Your task to perform on an android device: move a message to another label in the gmail app Image 0: 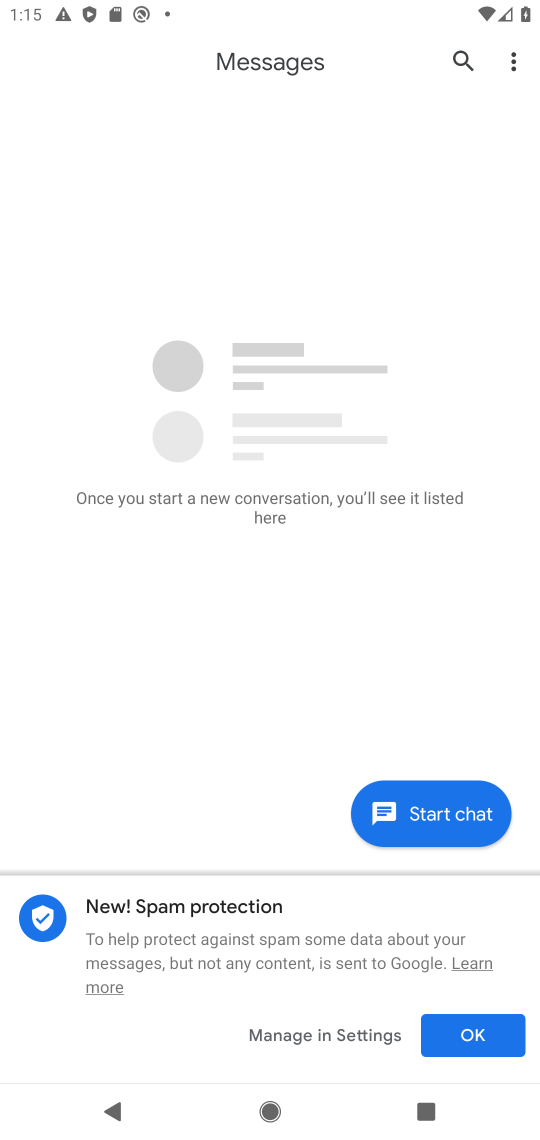
Step 0: press home button
Your task to perform on an android device: move a message to another label in the gmail app Image 1: 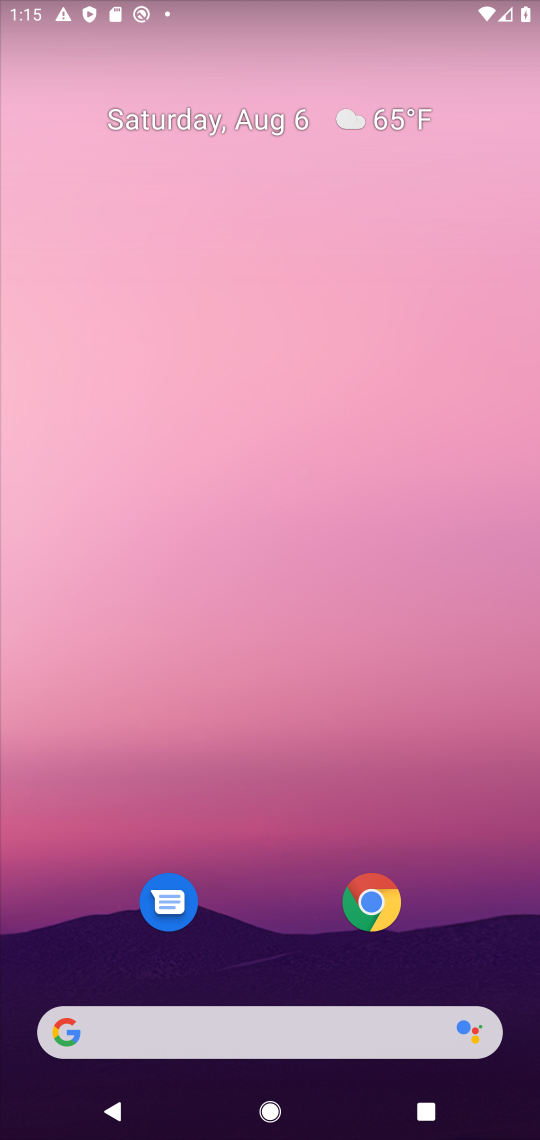
Step 1: drag from (280, 814) to (268, 160)
Your task to perform on an android device: move a message to another label in the gmail app Image 2: 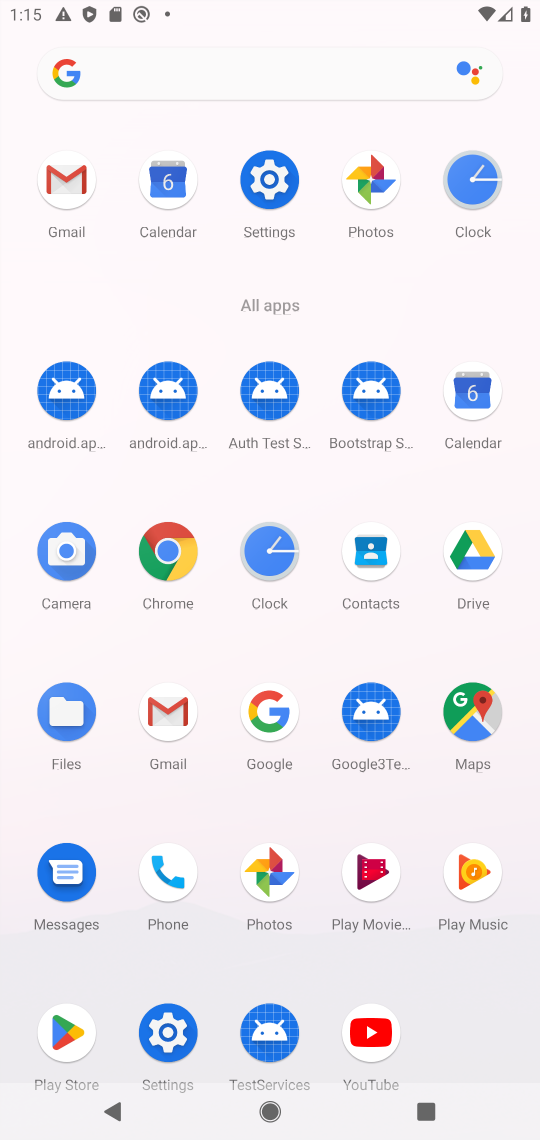
Step 2: click (54, 186)
Your task to perform on an android device: move a message to another label in the gmail app Image 3: 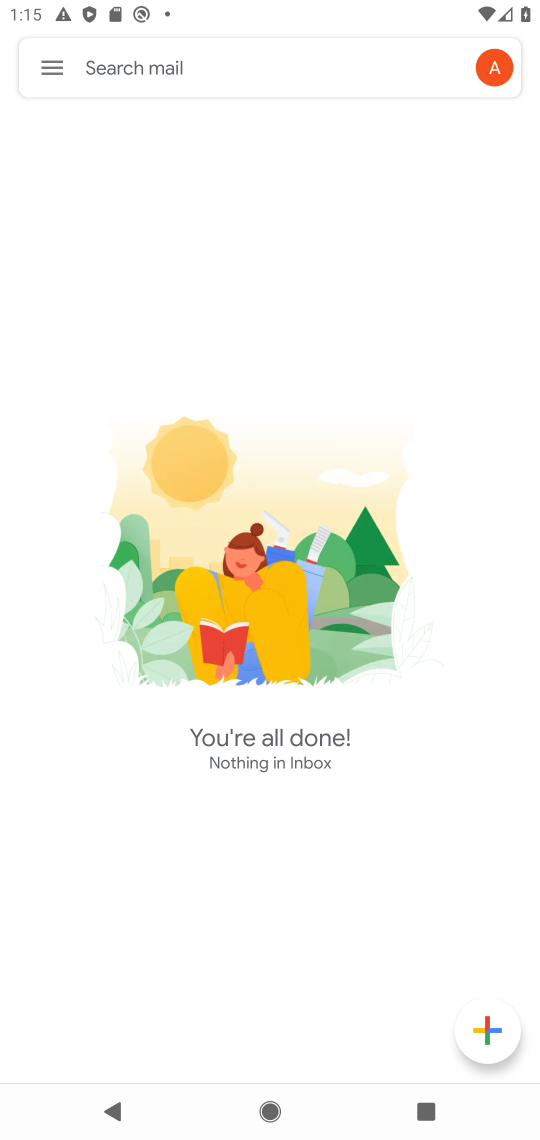
Step 3: click (35, 62)
Your task to perform on an android device: move a message to another label in the gmail app Image 4: 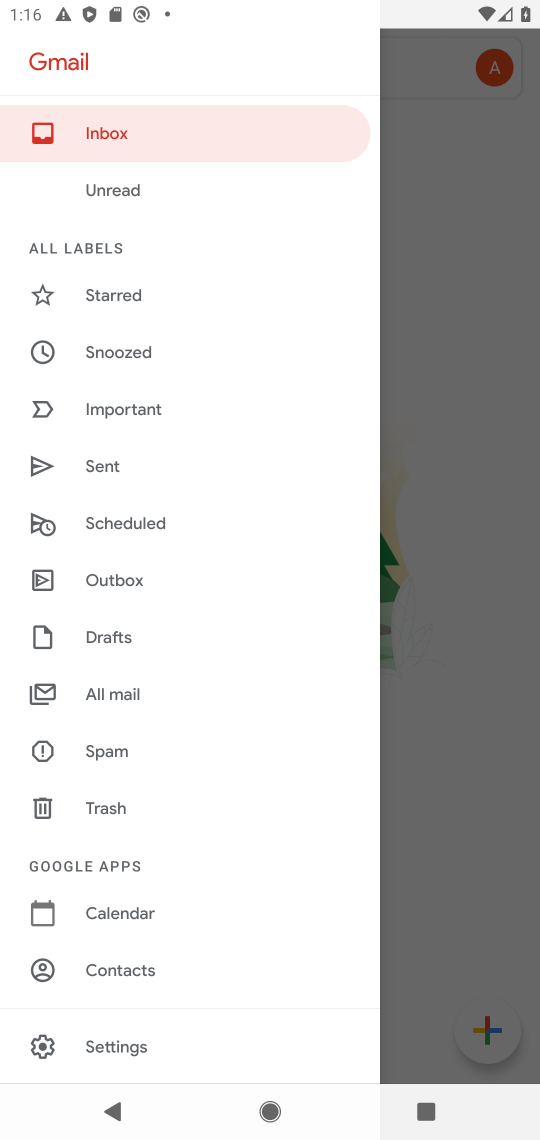
Step 4: click (105, 693)
Your task to perform on an android device: move a message to another label in the gmail app Image 5: 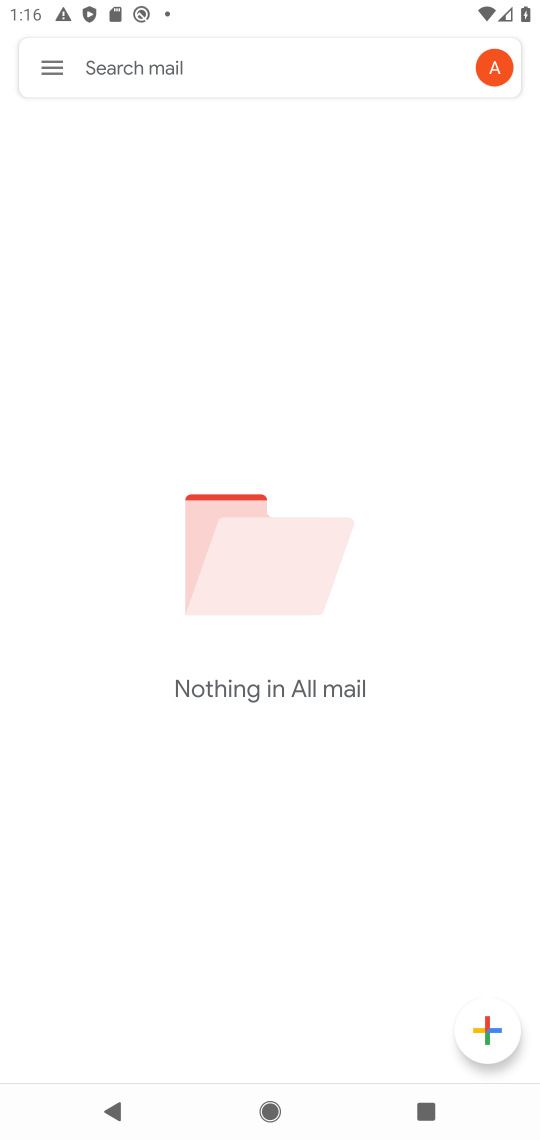
Step 5: task complete